Your task to perform on an android device: Open Amazon Image 0: 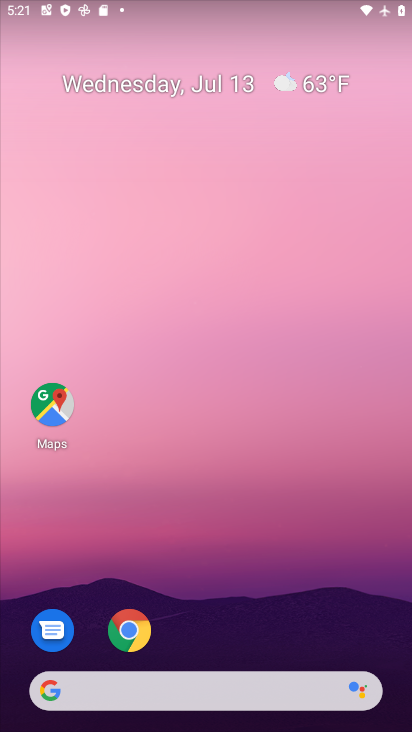
Step 0: press home button
Your task to perform on an android device: Open Amazon Image 1: 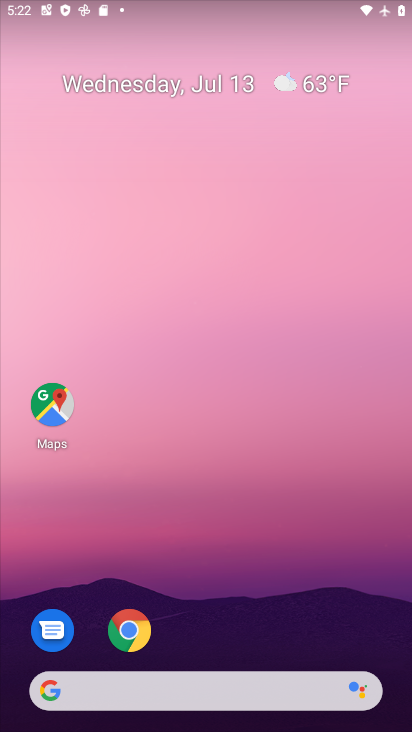
Step 1: click (46, 701)
Your task to perform on an android device: Open Amazon Image 2: 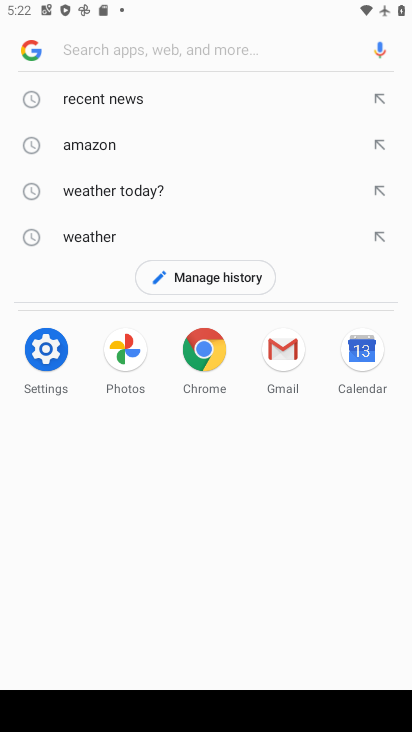
Step 2: click (89, 140)
Your task to perform on an android device: Open Amazon Image 3: 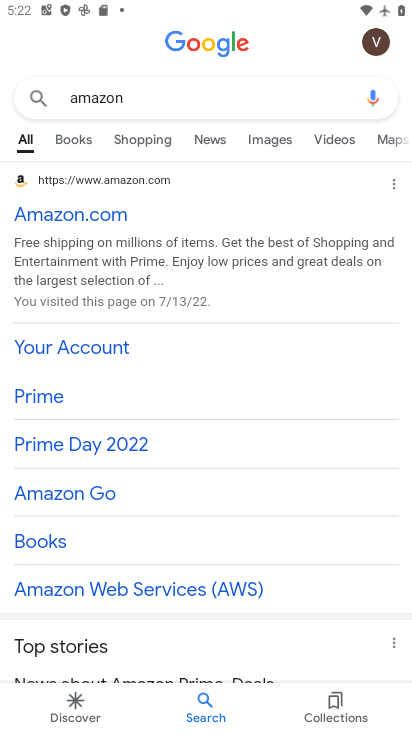
Step 3: click (60, 219)
Your task to perform on an android device: Open Amazon Image 4: 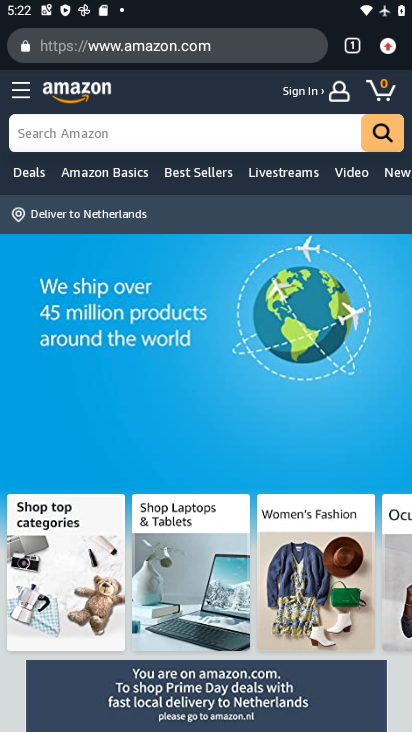
Step 4: task complete